Your task to perform on an android device: open app "NewsBreak: Local News & Alerts" (install if not already installed) Image 0: 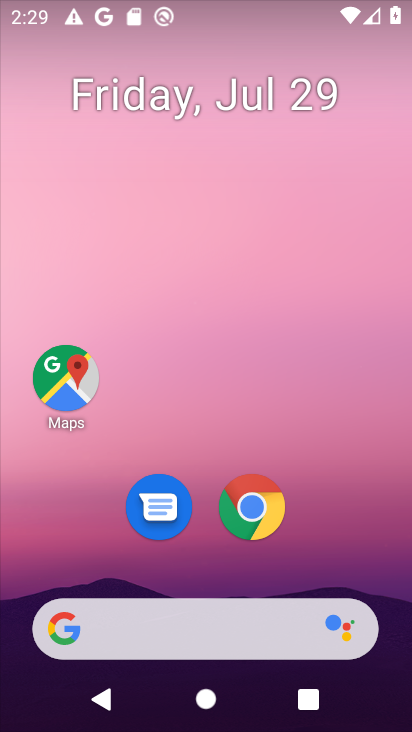
Step 0: click (258, 618)
Your task to perform on an android device: open app "NewsBreak: Local News & Alerts" (install if not already installed) Image 1: 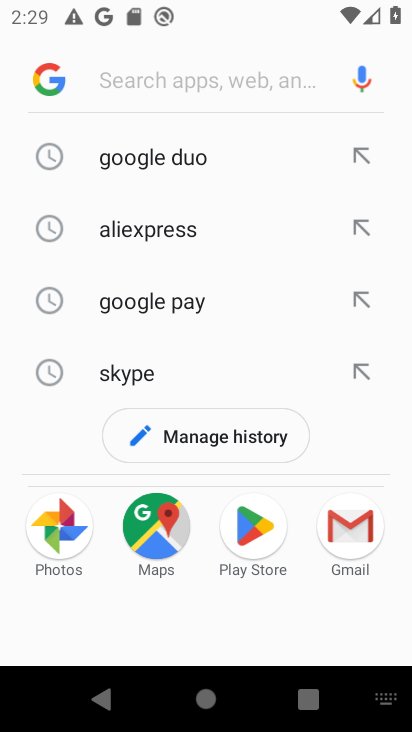
Step 1: type "newsbreak"
Your task to perform on an android device: open app "NewsBreak: Local News & Alerts" (install if not already installed) Image 2: 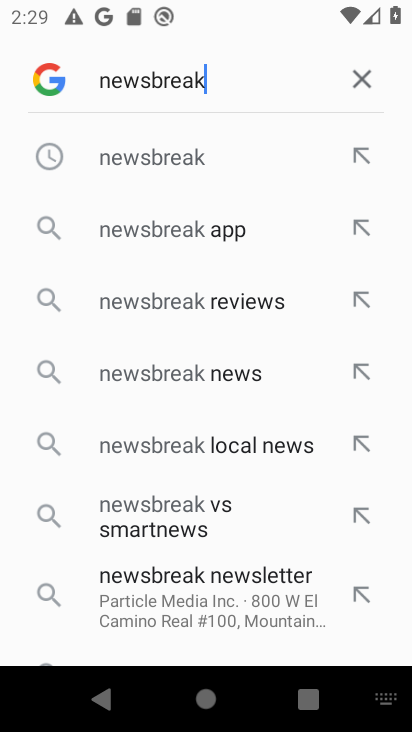
Step 2: click (224, 174)
Your task to perform on an android device: open app "NewsBreak: Local News & Alerts" (install if not already installed) Image 3: 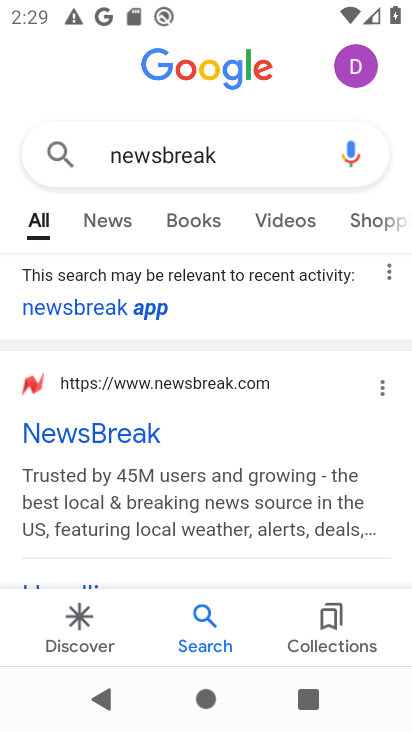
Step 3: click (141, 437)
Your task to perform on an android device: open app "NewsBreak: Local News & Alerts" (install if not already installed) Image 4: 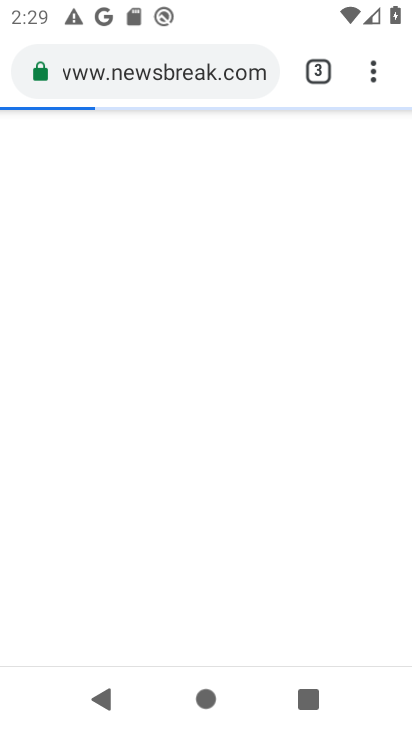
Step 4: task complete